Your task to perform on an android device: Open Reddit.com Image 0: 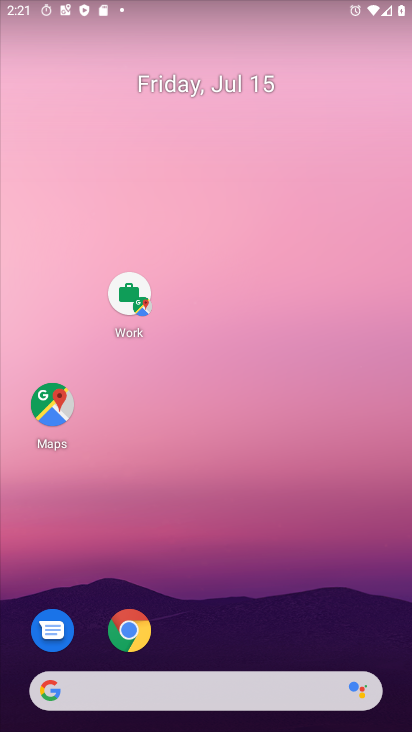
Step 0: click (135, 643)
Your task to perform on an android device: Open Reddit.com Image 1: 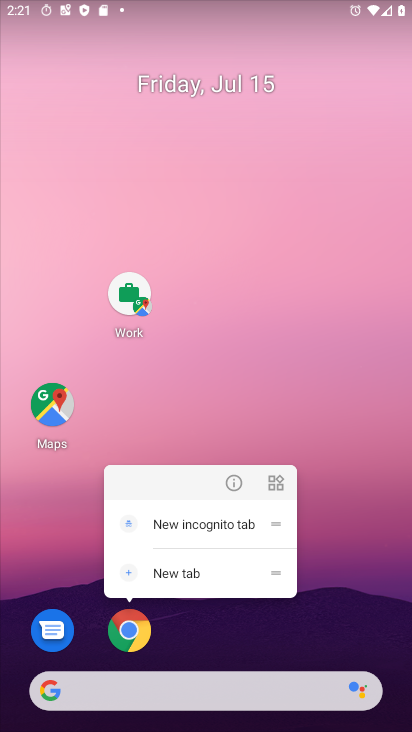
Step 1: click (139, 618)
Your task to perform on an android device: Open Reddit.com Image 2: 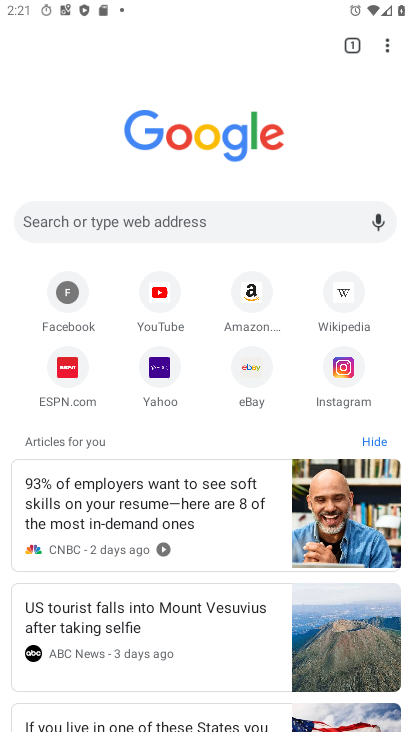
Step 2: click (189, 234)
Your task to perform on an android device: Open Reddit.com Image 3: 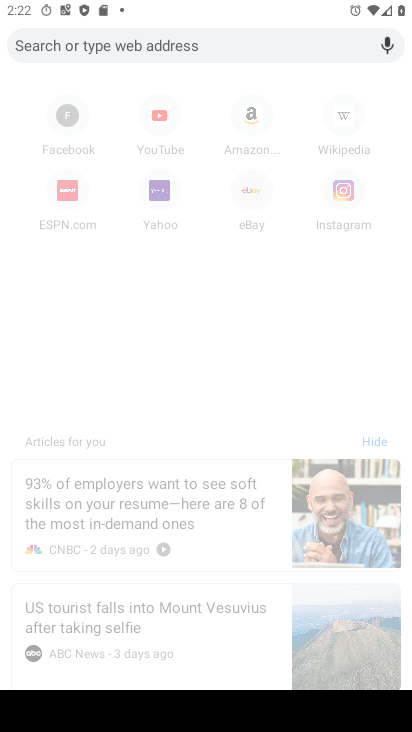
Step 3: type "Reddit.com"
Your task to perform on an android device: Open Reddit.com Image 4: 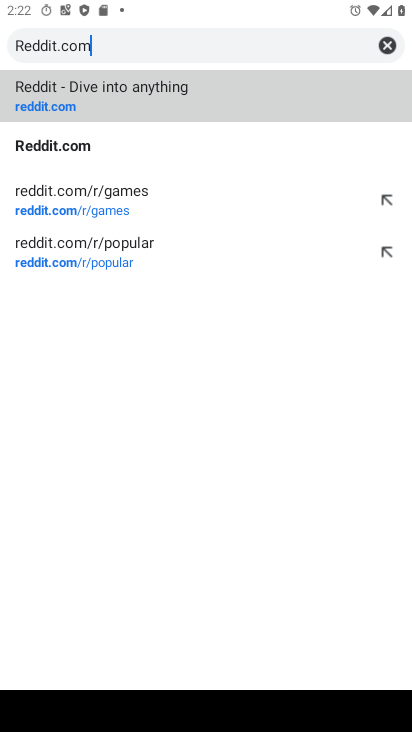
Step 4: click (130, 112)
Your task to perform on an android device: Open Reddit.com Image 5: 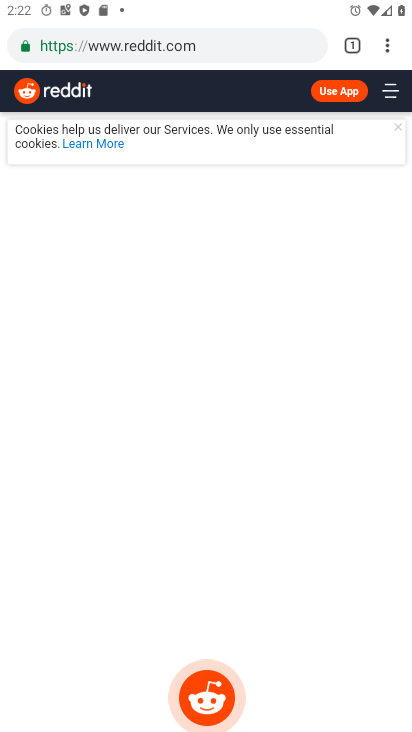
Step 5: task complete